Your task to perform on an android device: change the clock style Image 0: 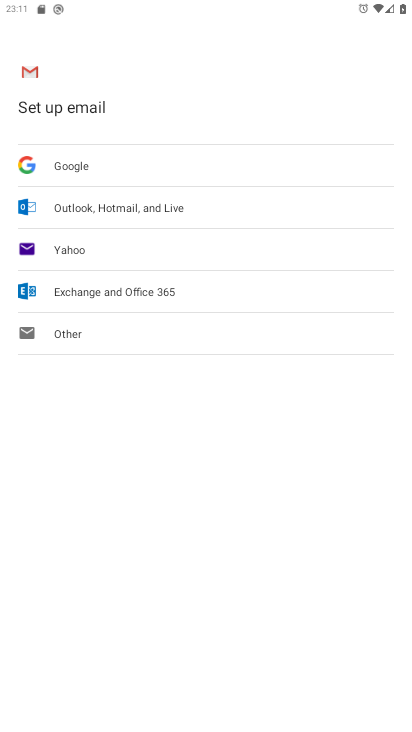
Step 0: press home button
Your task to perform on an android device: change the clock style Image 1: 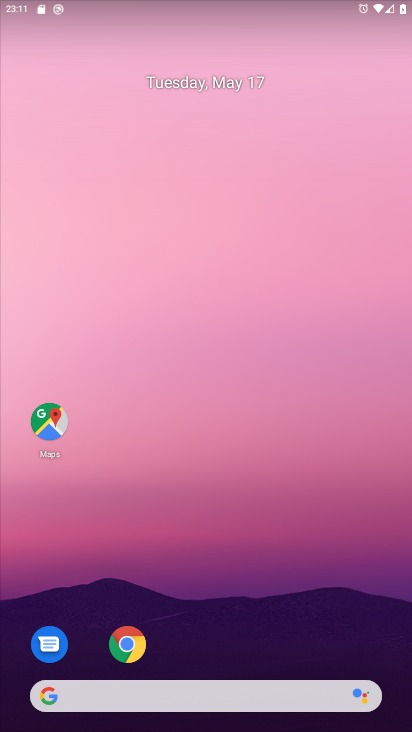
Step 1: drag from (217, 655) to (259, 100)
Your task to perform on an android device: change the clock style Image 2: 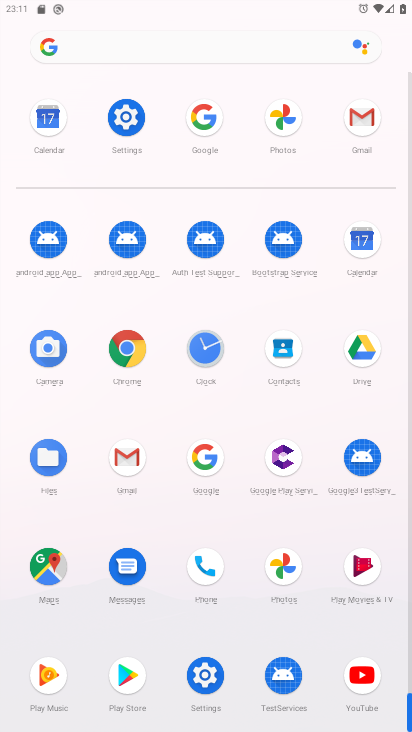
Step 2: click (203, 343)
Your task to perform on an android device: change the clock style Image 3: 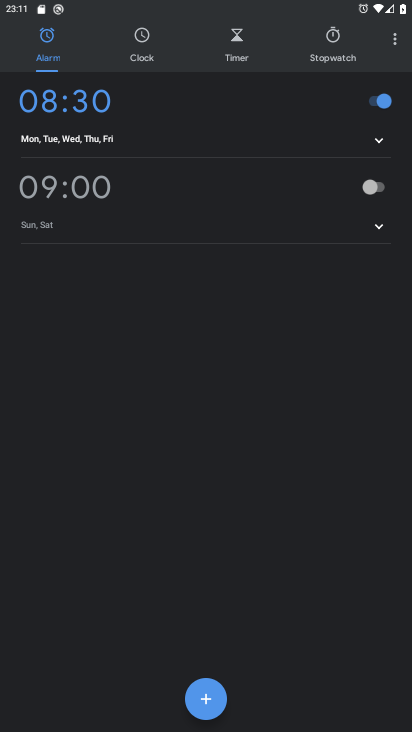
Step 3: click (387, 44)
Your task to perform on an android device: change the clock style Image 4: 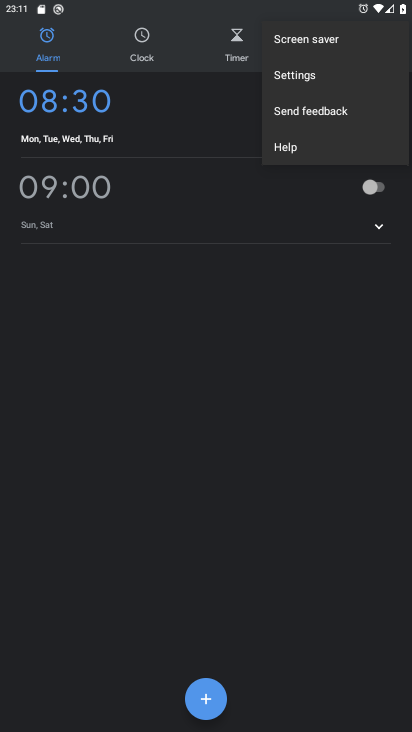
Step 4: click (326, 77)
Your task to perform on an android device: change the clock style Image 5: 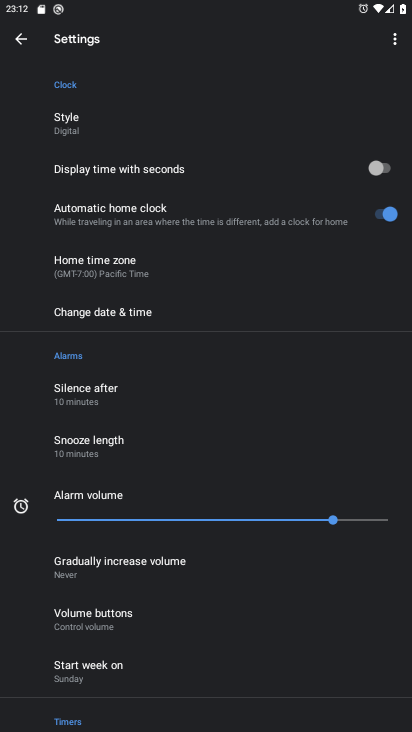
Step 5: click (97, 118)
Your task to perform on an android device: change the clock style Image 6: 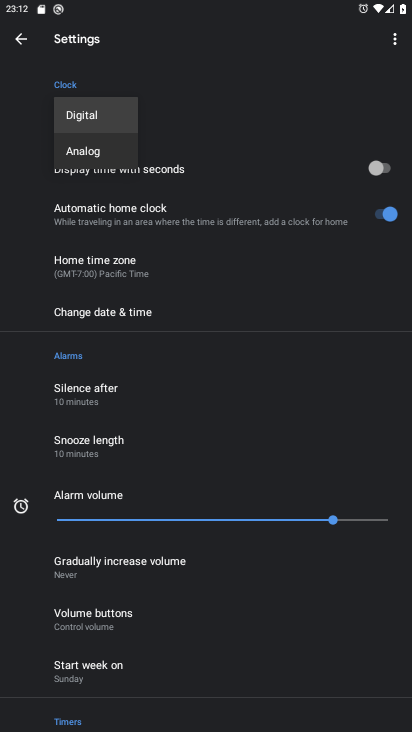
Step 6: click (111, 149)
Your task to perform on an android device: change the clock style Image 7: 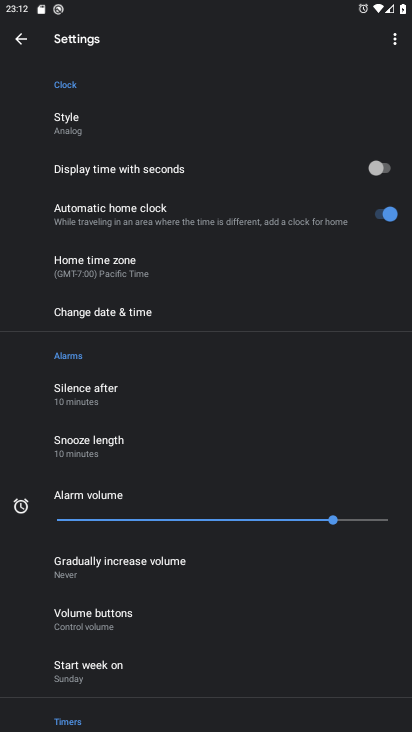
Step 7: task complete